Your task to perform on an android device: toggle notification dots Image 0: 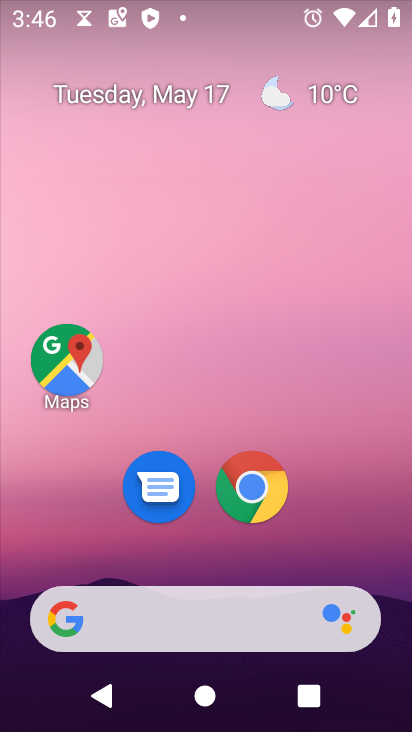
Step 0: drag from (388, 605) to (346, 147)
Your task to perform on an android device: toggle notification dots Image 1: 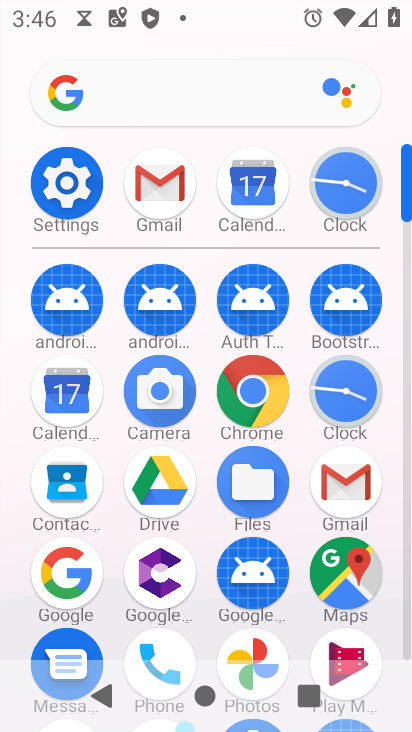
Step 1: click (407, 643)
Your task to perform on an android device: toggle notification dots Image 2: 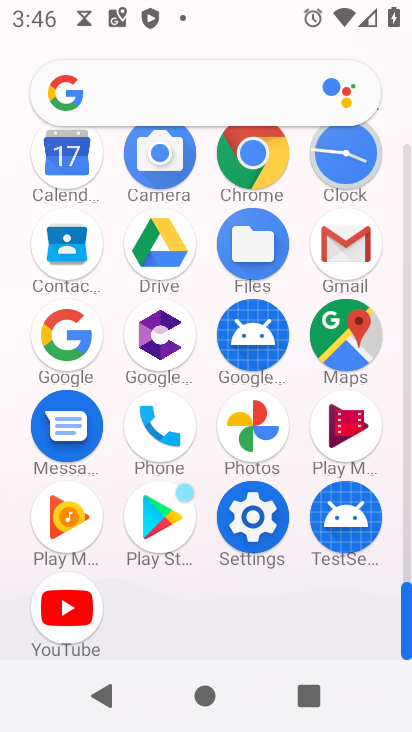
Step 2: click (250, 518)
Your task to perform on an android device: toggle notification dots Image 3: 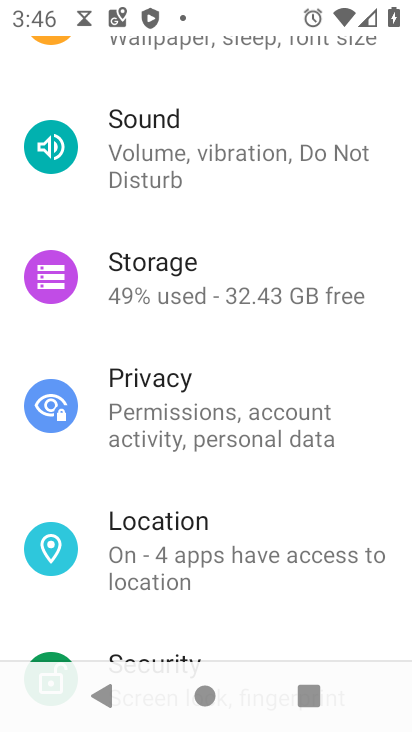
Step 3: drag from (351, 192) to (343, 526)
Your task to perform on an android device: toggle notification dots Image 4: 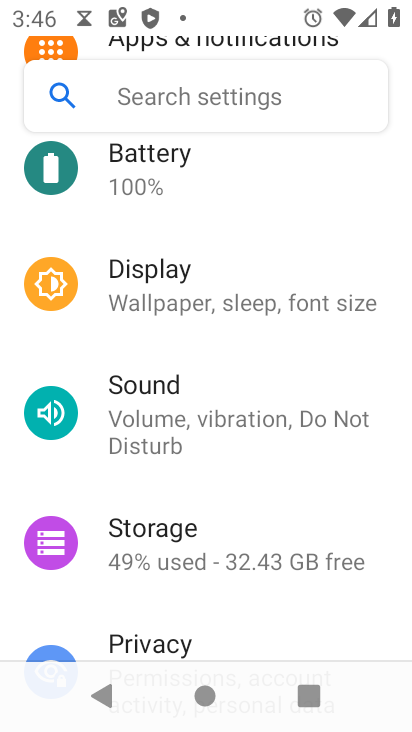
Step 4: drag from (353, 210) to (332, 569)
Your task to perform on an android device: toggle notification dots Image 5: 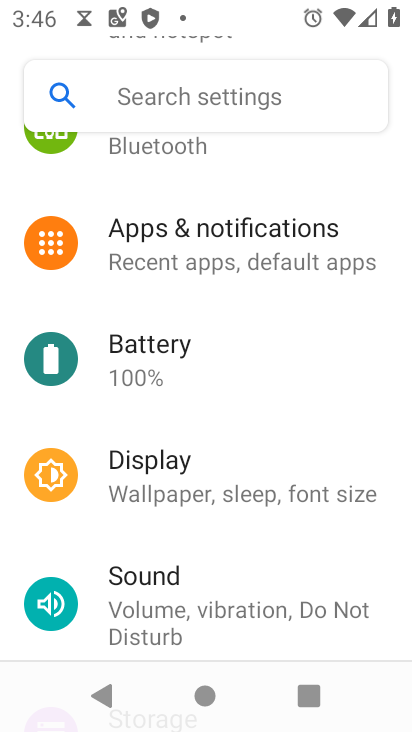
Step 5: click (172, 236)
Your task to perform on an android device: toggle notification dots Image 6: 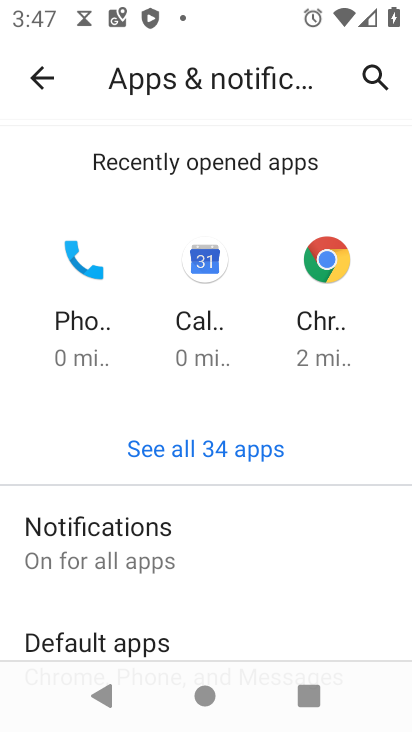
Step 6: drag from (187, 535) to (196, 285)
Your task to perform on an android device: toggle notification dots Image 7: 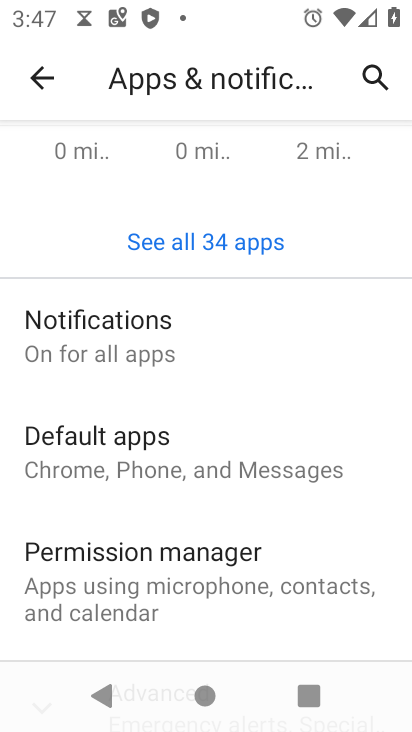
Step 7: click (133, 343)
Your task to perform on an android device: toggle notification dots Image 8: 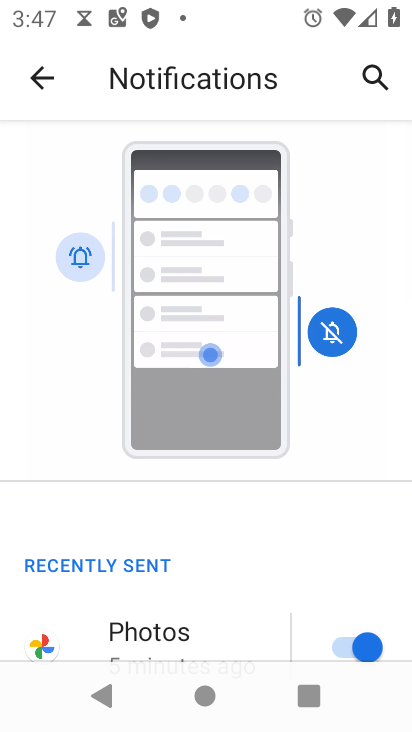
Step 8: drag from (294, 631) to (246, 136)
Your task to perform on an android device: toggle notification dots Image 9: 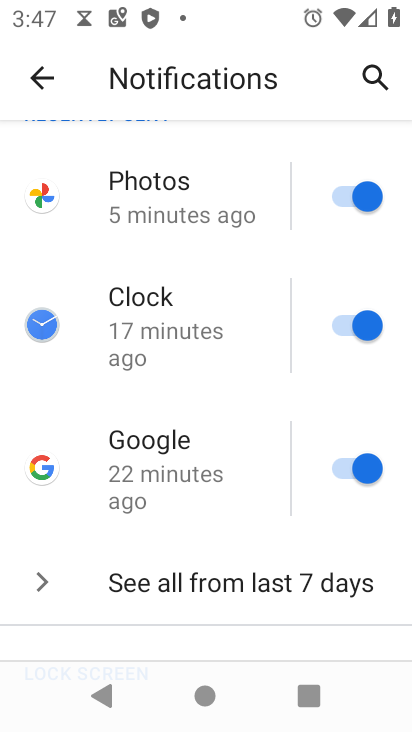
Step 9: drag from (288, 599) to (283, 203)
Your task to perform on an android device: toggle notification dots Image 10: 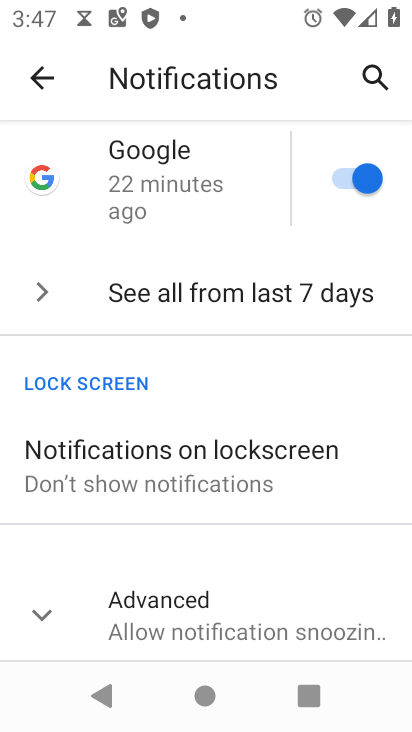
Step 10: click (38, 613)
Your task to perform on an android device: toggle notification dots Image 11: 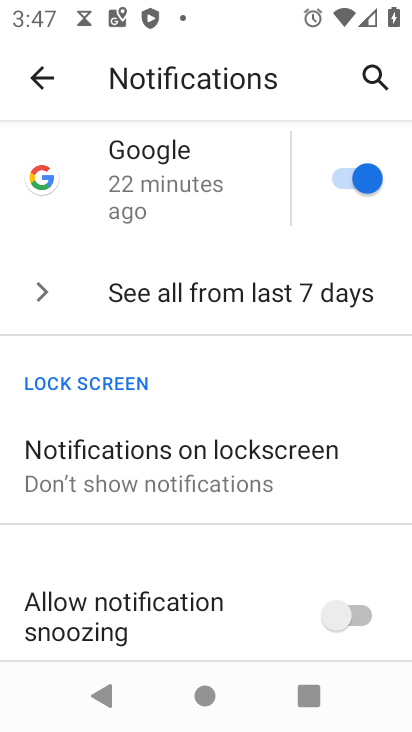
Step 11: drag from (321, 583) to (299, 180)
Your task to perform on an android device: toggle notification dots Image 12: 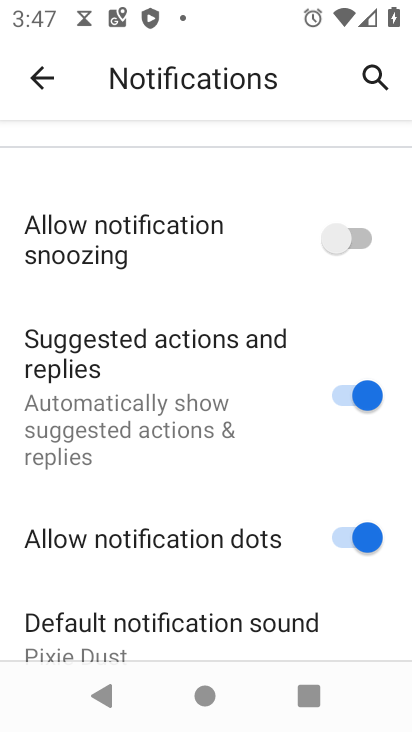
Step 12: click (340, 535)
Your task to perform on an android device: toggle notification dots Image 13: 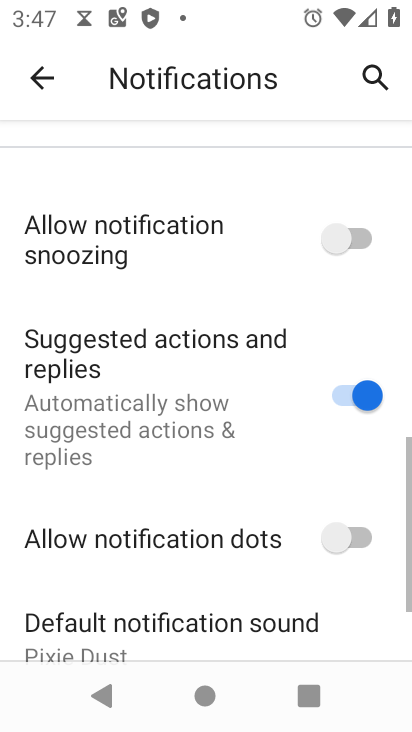
Step 13: task complete